Your task to perform on an android device: find which apps use the phone's location Image 0: 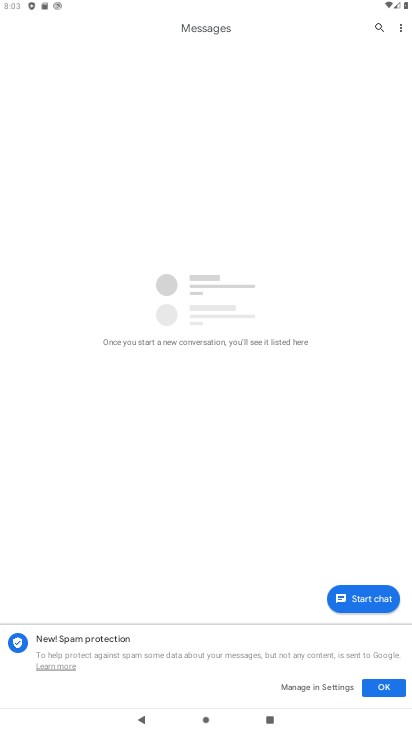
Step 0: press home button
Your task to perform on an android device: find which apps use the phone's location Image 1: 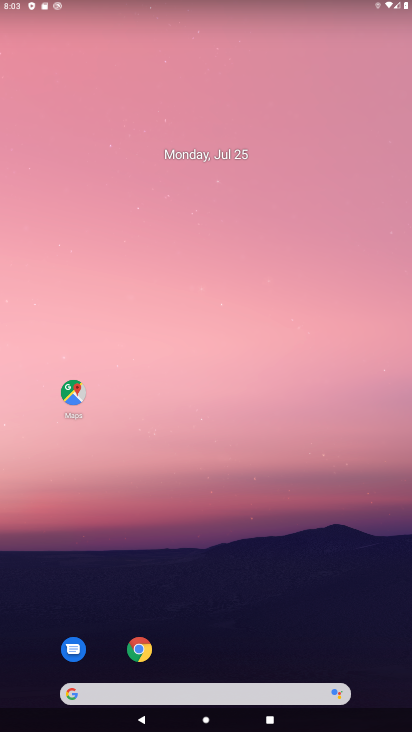
Step 1: drag from (187, 640) to (187, 99)
Your task to perform on an android device: find which apps use the phone's location Image 2: 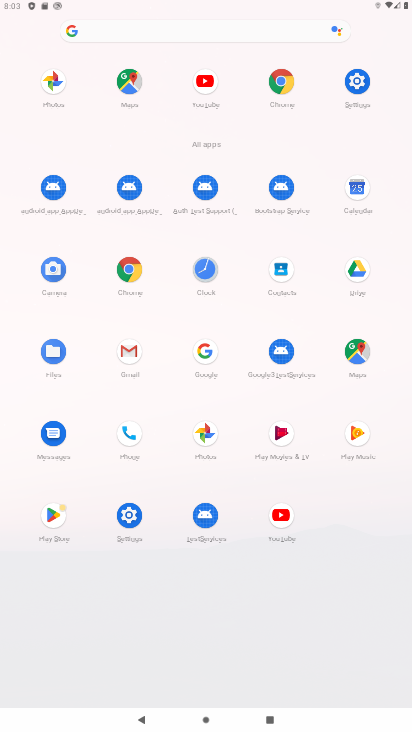
Step 2: click (340, 77)
Your task to perform on an android device: find which apps use the phone's location Image 3: 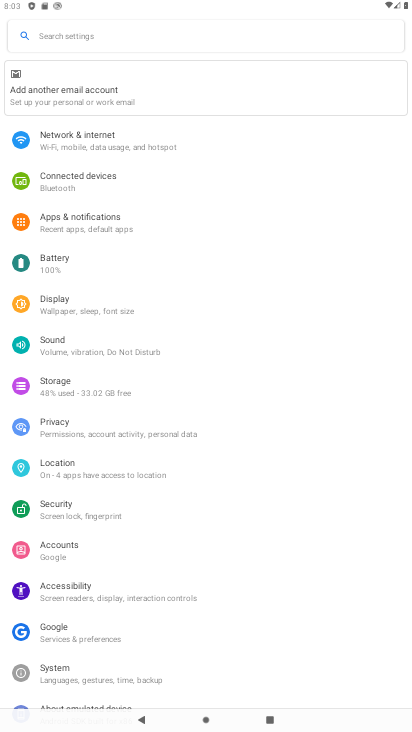
Step 3: click (130, 465)
Your task to perform on an android device: find which apps use the phone's location Image 4: 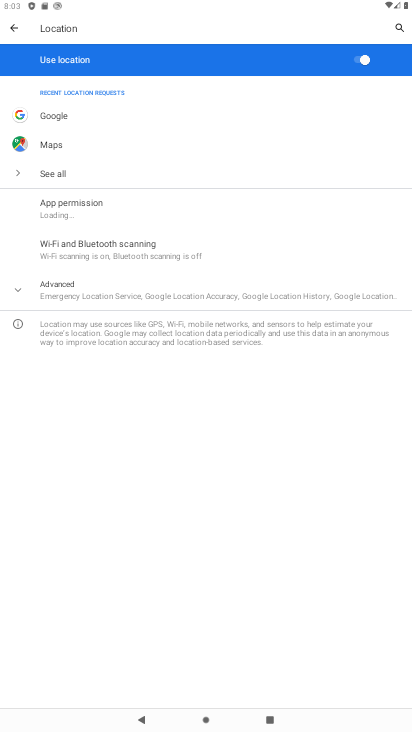
Step 4: click (117, 215)
Your task to perform on an android device: find which apps use the phone's location Image 5: 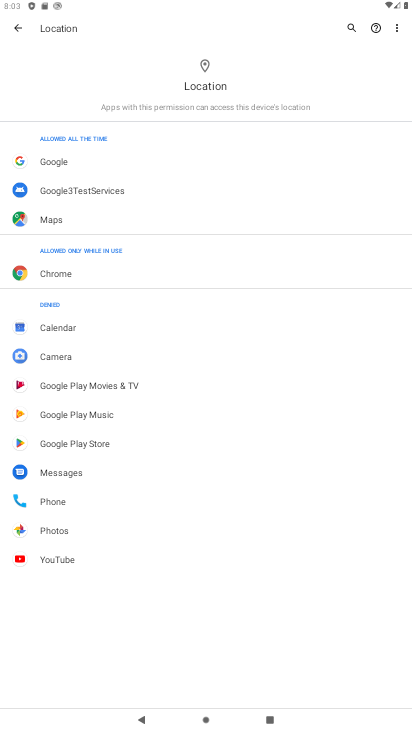
Step 5: task complete